Your task to perform on an android device: open chrome privacy settings Image 0: 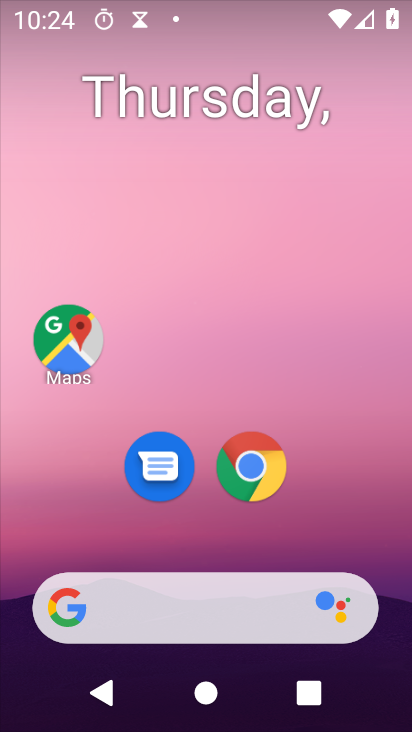
Step 0: drag from (163, 597) to (289, 132)
Your task to perform on an android device: open chrome privacy settings Image 1: 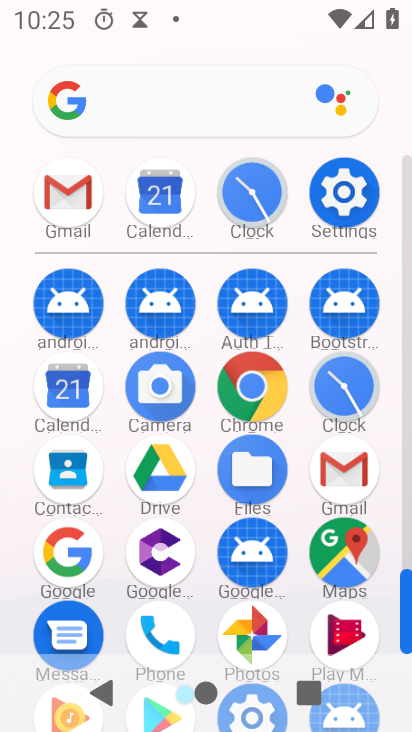
Step 1: click (245, 398)
Your task to perform on an android device: open chrome privacy settings Image 2: 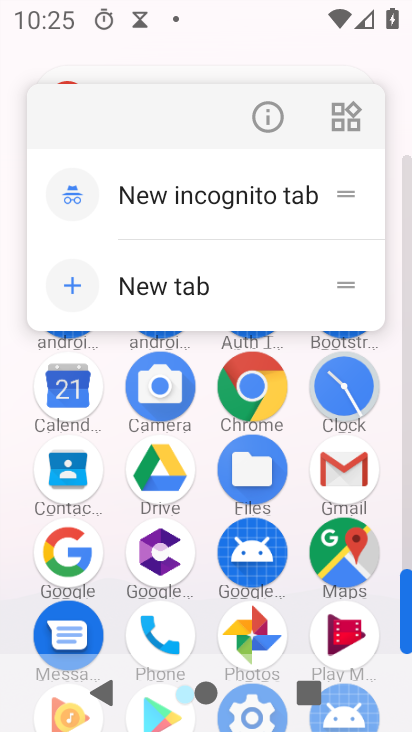
Step 2: click (252, 395)
Your task to perform on an android device: open chrome privacy settings Image 3: 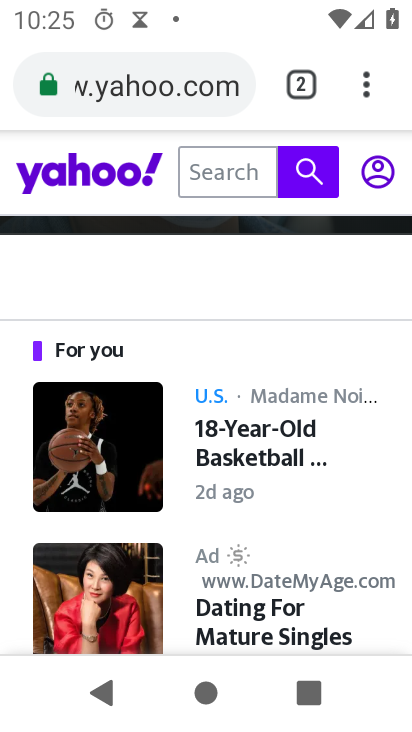
Step 3: click (357, 99)
Your task to perform on an android device: open chrome privacy settings Image 4: 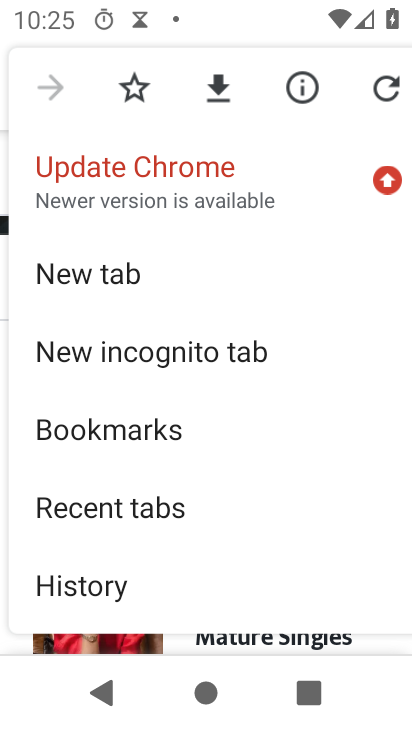
Step 4: drag from (163, 569) to (354, 78)
Your task to perform on an android device: open chrome privacy settings Image 5: 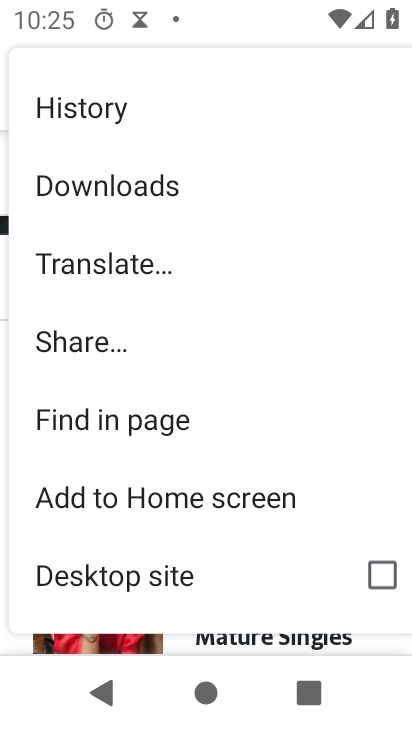
Step 5: drag from (182, 485) to (342, 153)
Your task to perform on an android device: open chrome privacy settings Image 6: 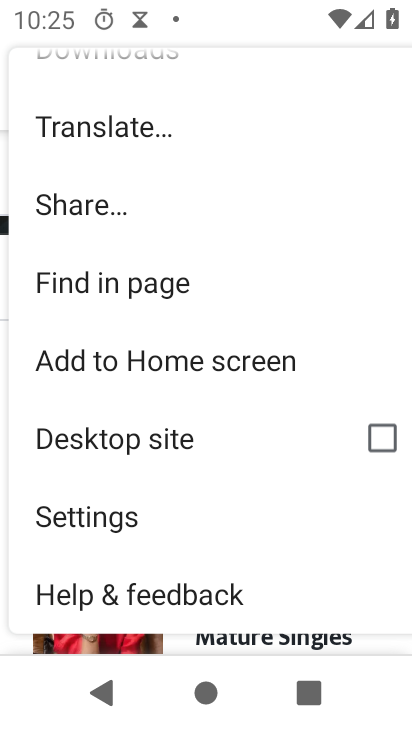
Step 6: click (105, 522)
Your task to perform on an android device: open chrome privacy settings Image 7: 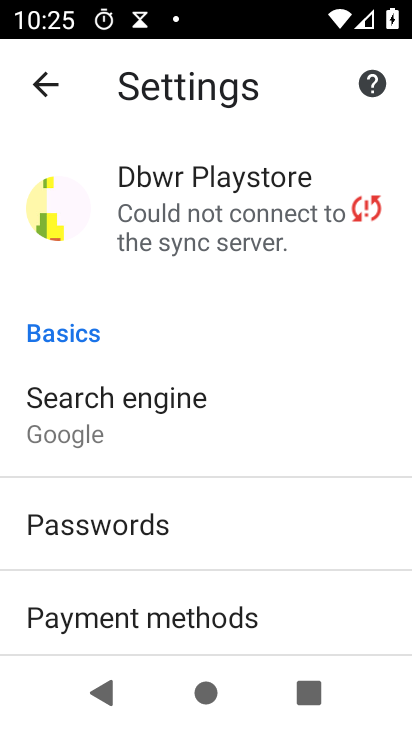
Step 7: drag from (120, 542) to (217, 348)
Your task to perform on an android device: open chrome privacy settings Image 8: 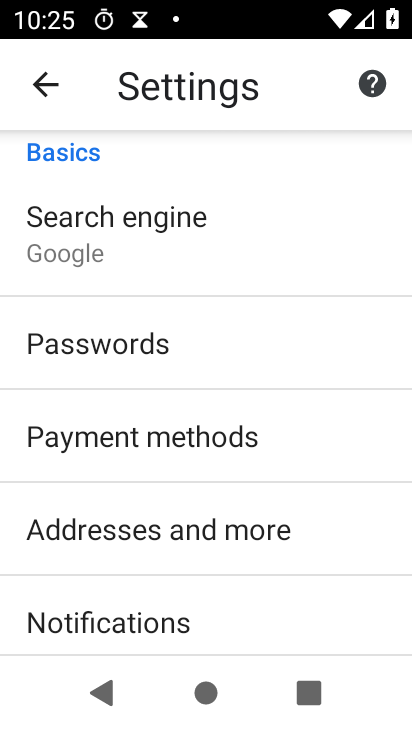
Step 8: drag from (112, 582) to (246, 231)
Your task to perform on an android device: open chrome privacy settings Image 9: 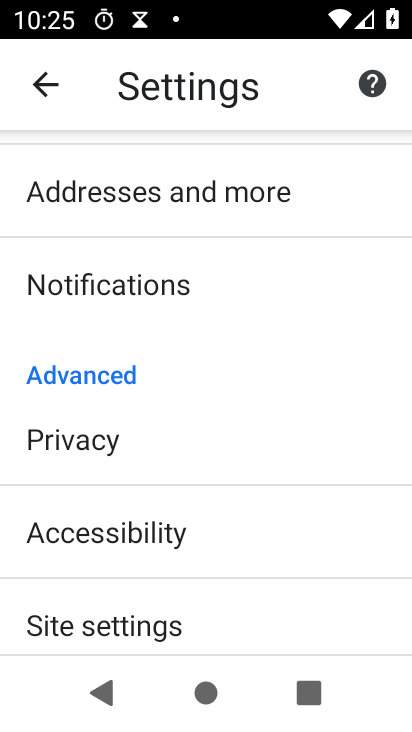
Step 9: click (108, 451)
Your task to perform on an android device: open chrome privacy settings Image 10: 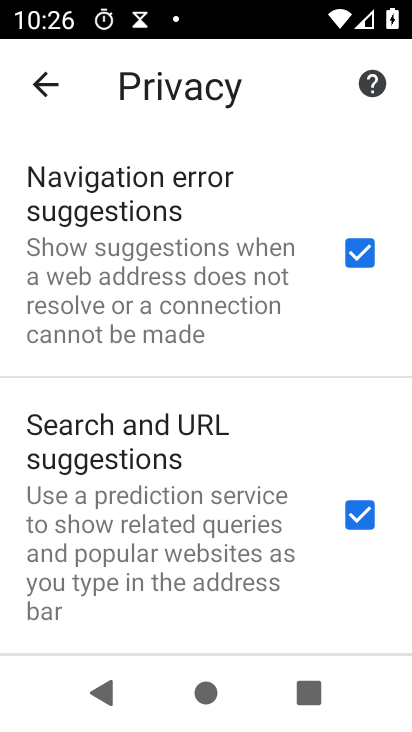
Step 10: task complete